Your task to perform on an android device: see tabs open on other devices in the chrome app Image 0: 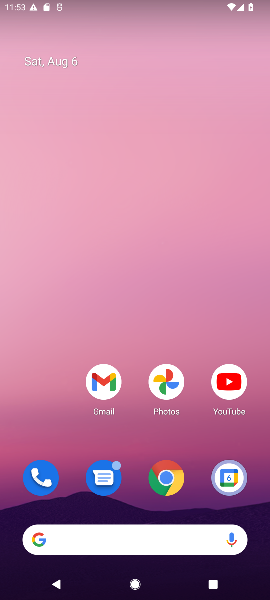
Step 0: click (161, 477)
Your task to perform on an android device: see tabs open on other devices in the chrome app Image 1: 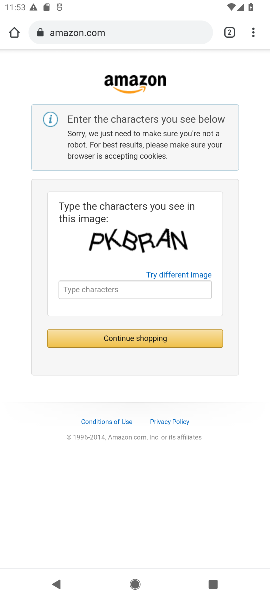
Step 1: click (253, 32)
Your task to perform on an android device: see tabs open on other devices in the chrome app Image 2: 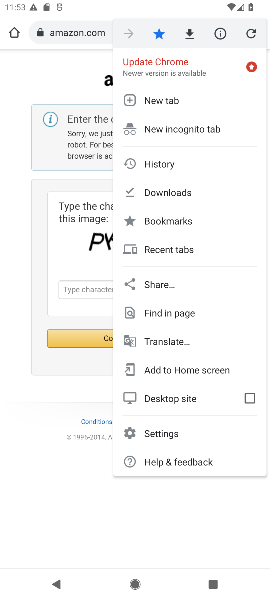
Step 2: click (156, 102)
Your task to perform on an android device: see tabs open on other devices in the chrome app Image 3: 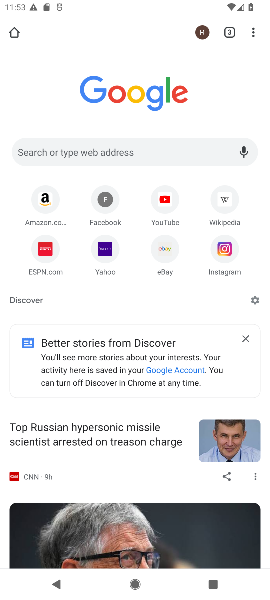
Step 3: task complete